Your task to perform on an android device: open app "TextNow: Call + Text Unlimited" (install if not already installed), go to login, and select forgot password Image 0: 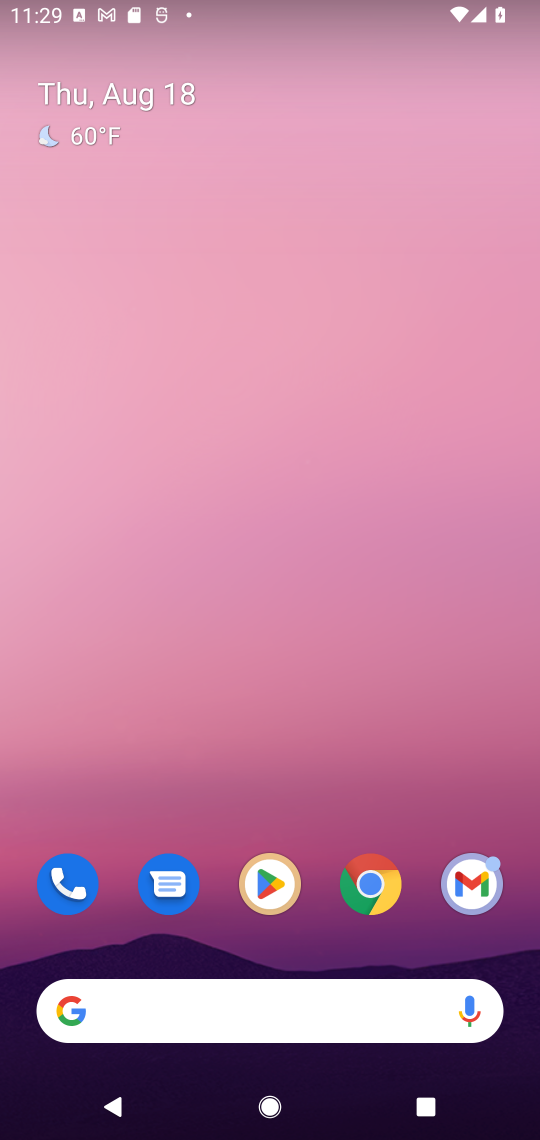
Step 0: drag from (222, 1007) to (344, 71)
Your task to perform on an android device: open app "TextNow: Call + Text Unlimited" (install if not already installed), go to login, and select forgot password Image 1: 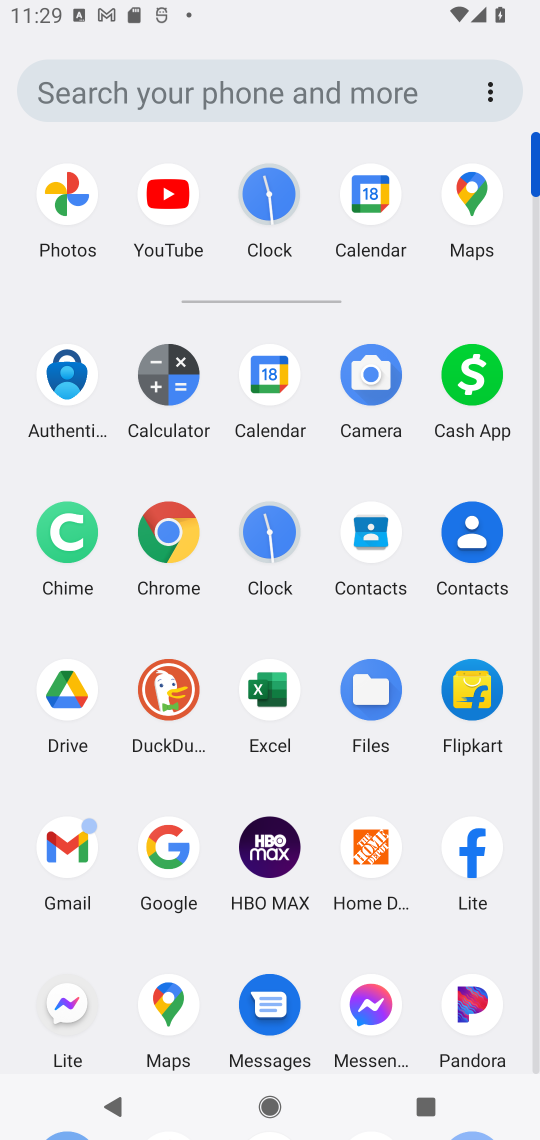
Step 1: drag from (320, 996) to (312, 373)
Your task to perform on an android device: open app "TextNow: Call + Text Unlimited" (install if not already installed), go to login, and select forgot password Image 2: 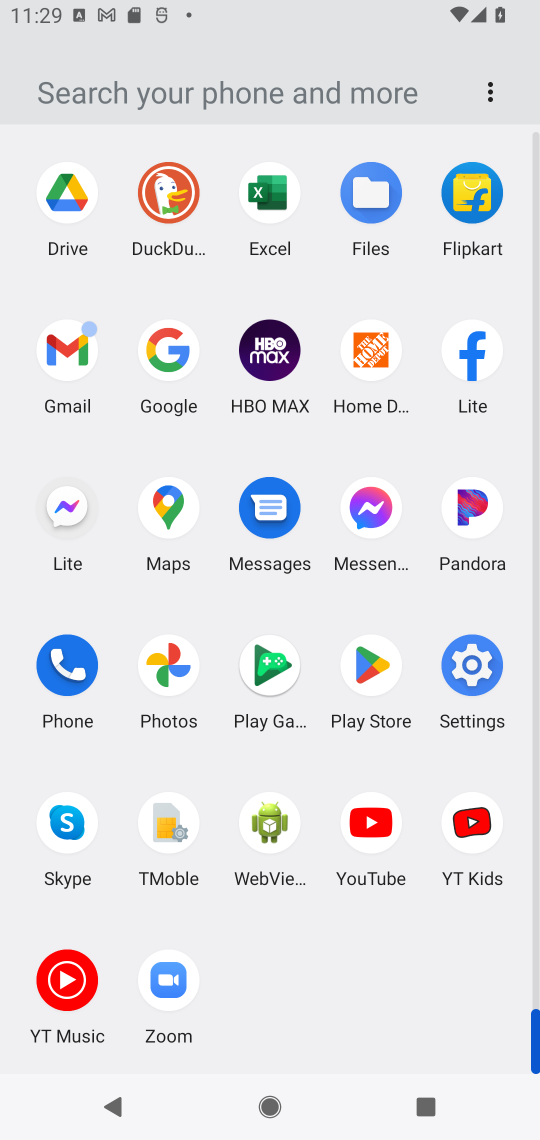
Step 2: click (373, 677)
Your task to perform on an android device: open app "TextNow: Call + Text Unlimited" (install if not already installed), go to login, and select forgot password Image 3: 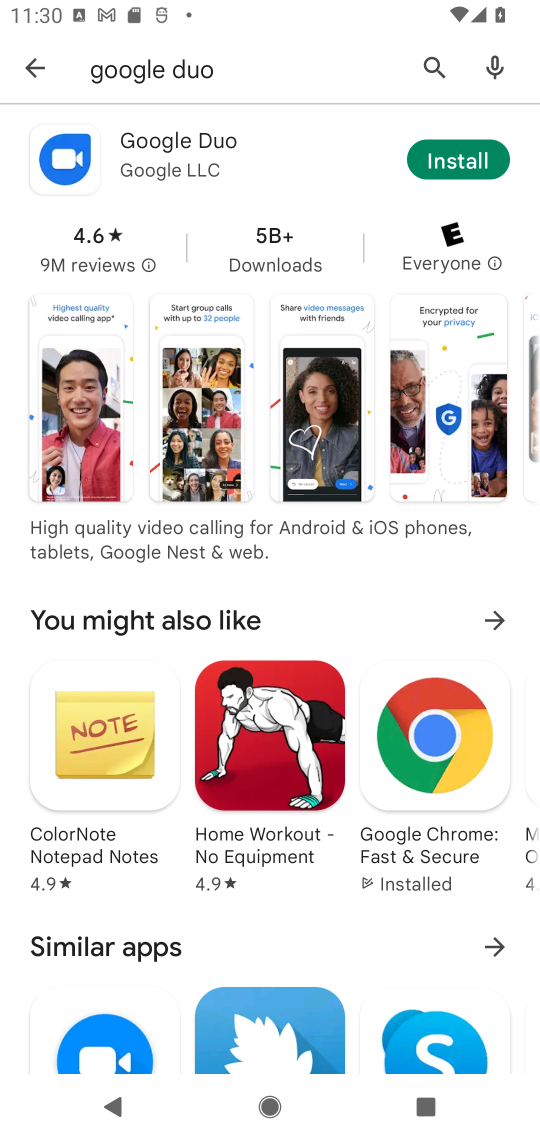
Step 3: press back button
Your task to perform on an android device: open app "TextNow: Call + Text Unlimited" (install if not already installed), go to login, and select forgot password Image 4: 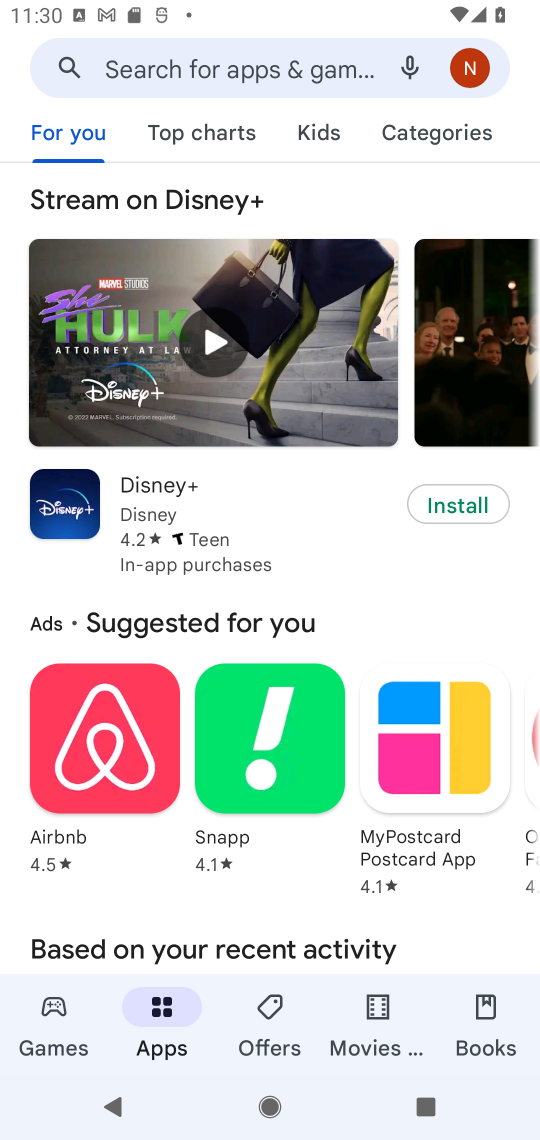
Step 4: click (292, 70)
Your task to perform on an android device: open app "TextNow: Call + Text Unlimited" (install if not already installed), go to login, and select forgot password Image 5: 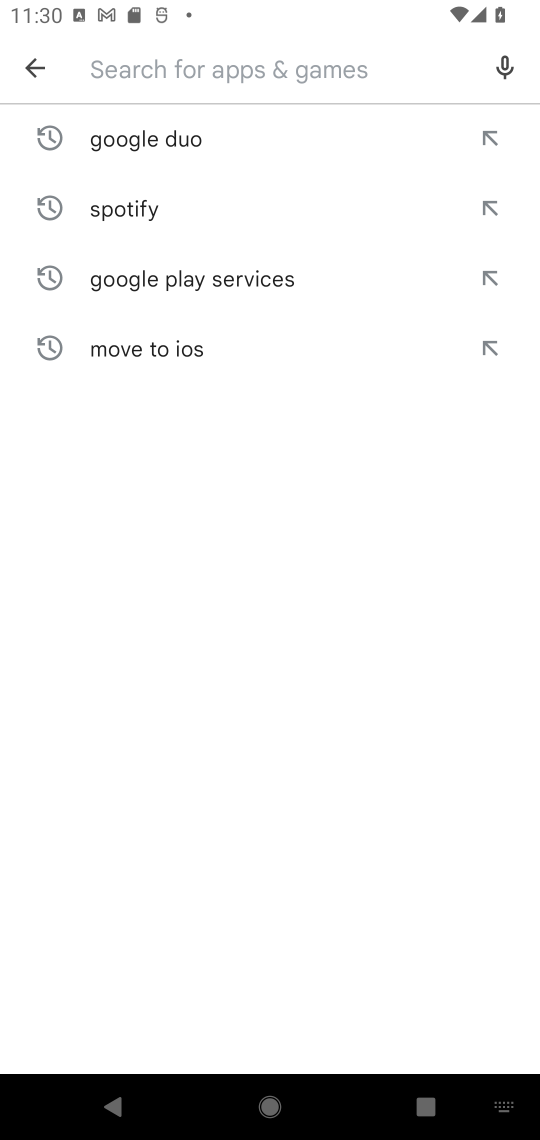
Step 5: click (200, 72)
Your task to perform on an android device: open app "TextNow: Call + Text Unlimited" (install if not already installed), go to login, and select forgot password Image 6: 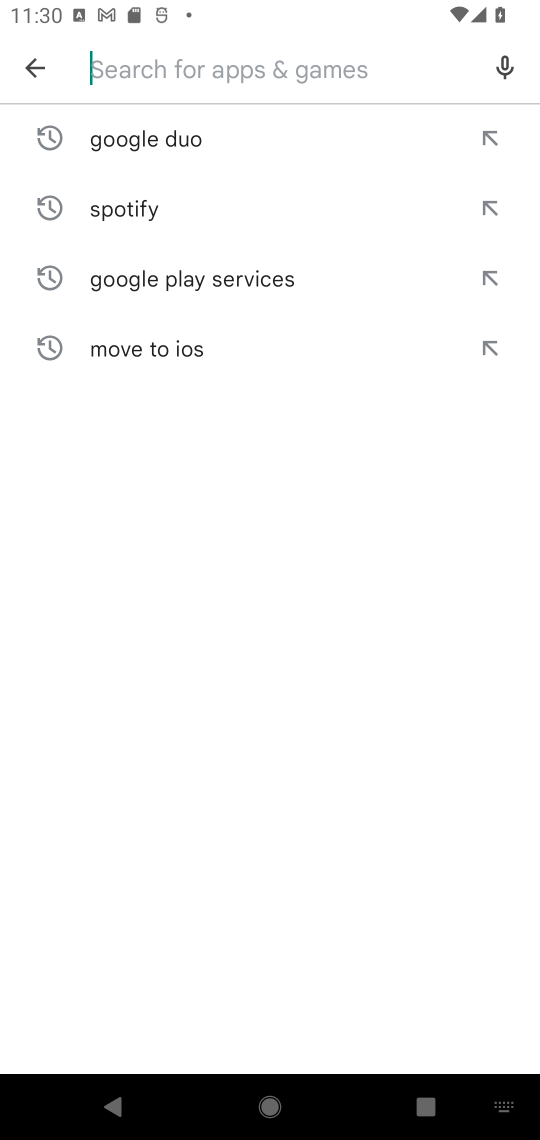
Step 6: type "TextNow: Call + Text Unlimited"
Your task to perform on an android device: open app "TextNow: Call + Text Unlimited" (install if not already installed), go to login, and select forgot password Image 7: 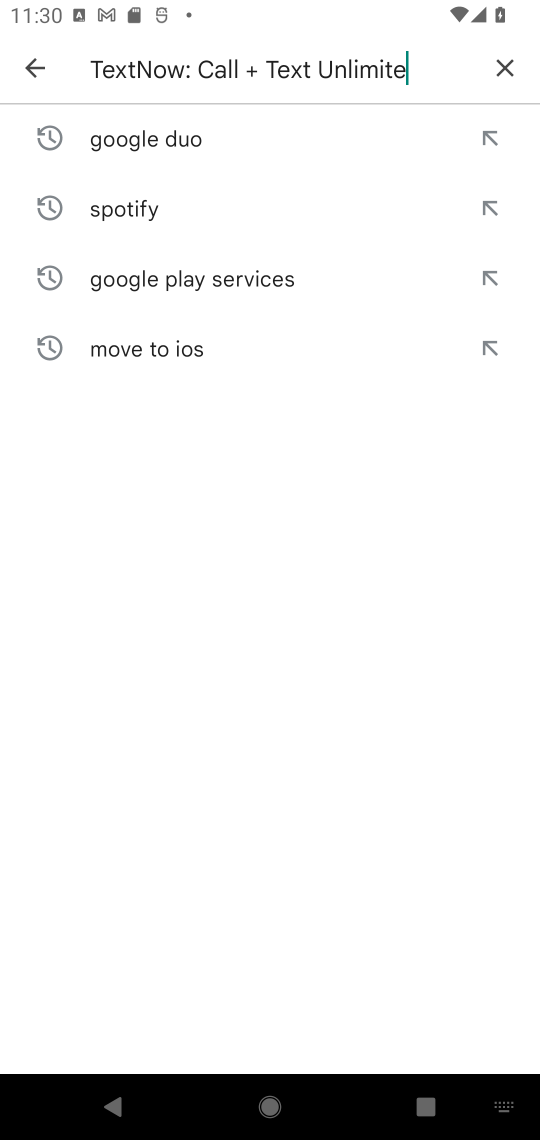
Step 7: type ""
Your task to perform on an android device: open app "TextNow: Call + Text Unlimited" (install if not already installed), go to login, and select forgot password Image 8: 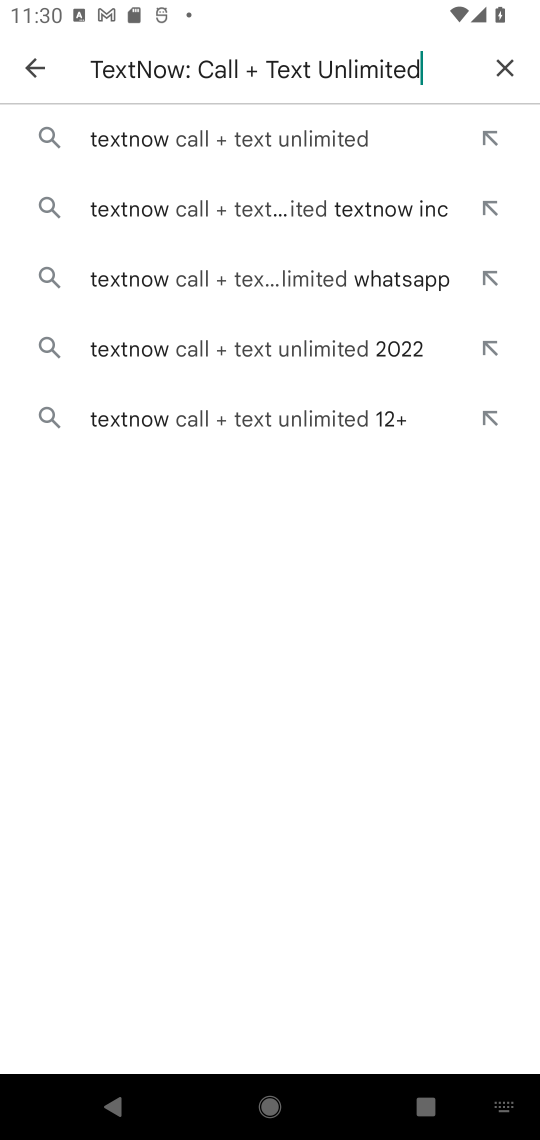
Step 8: click (240, 140)
Your task to perform on an android device: open app "TextNow: Call + Text Unlimited" (install if not already installed), go to login, and select forgot password Image 9: 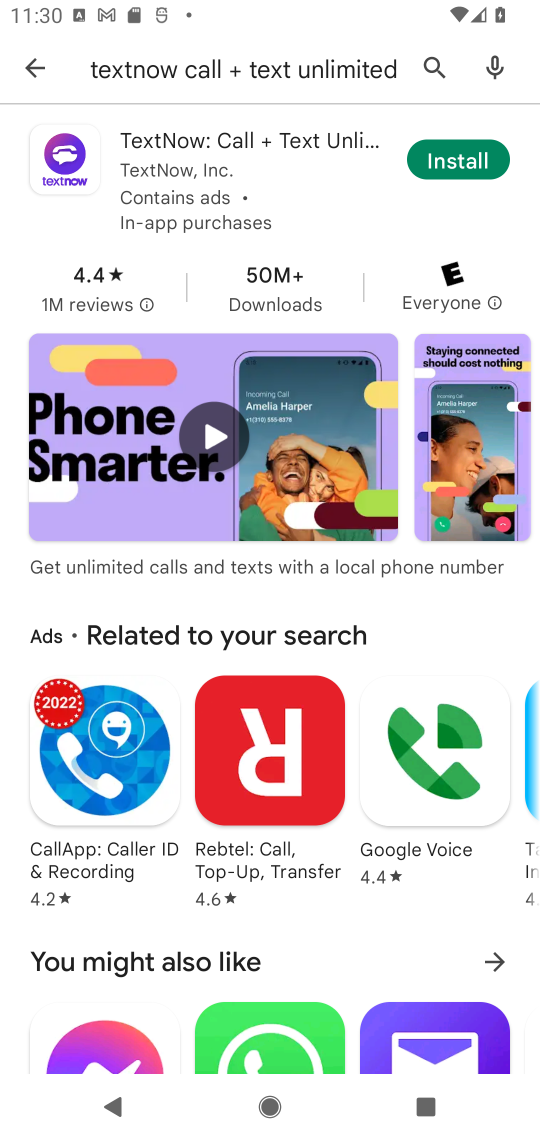
Step 9: click (467, 151)
Your task to perform on an android device: open app "TextNow: Call + Text Unlimited" (install if not already installed), go to login, and select forgot password Image 10: 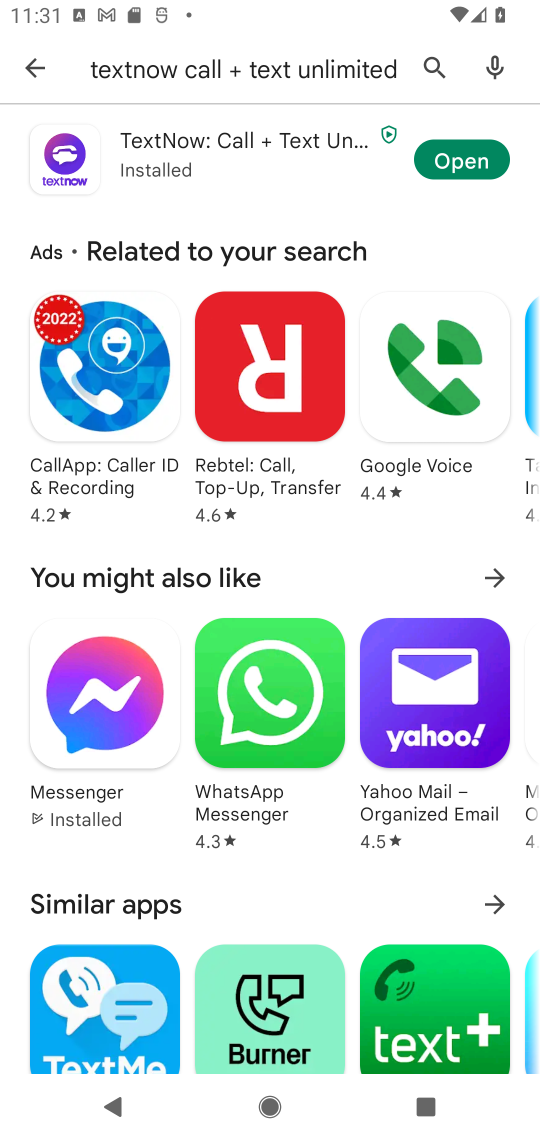
Step 10: click (462, 151)
Your task to perform on an android device: open app "TextNow: Call + Text Unlimited" (install if not already installed), go to login, and select forgot password Image 11: 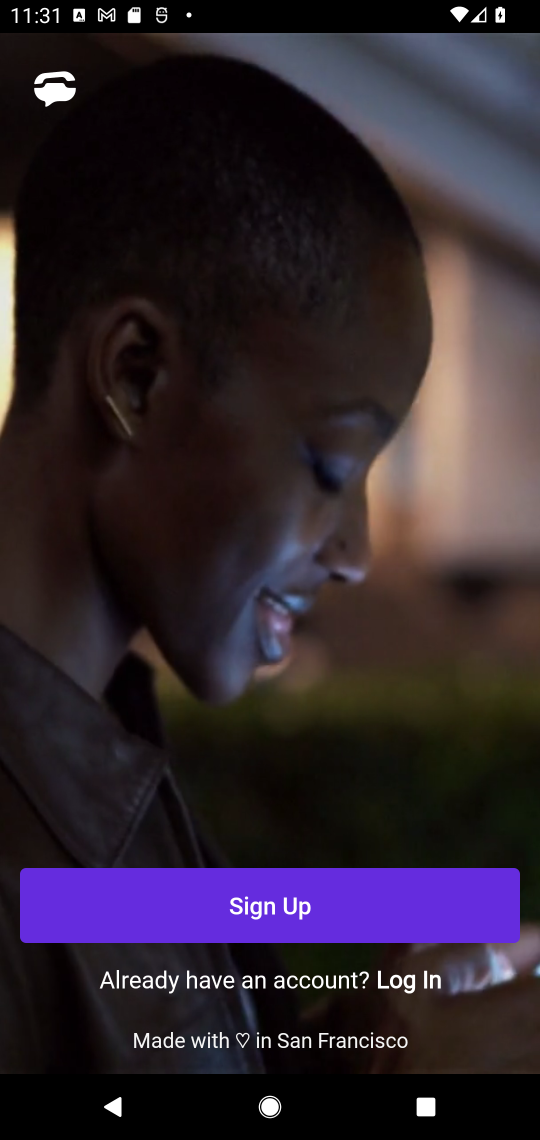
Step 11: click (404, 990)
Your task to perform on an android device: open app "TextNow: Call + Text Unlimited" (install if not already installed), go to login, and select forgot password Image 12: 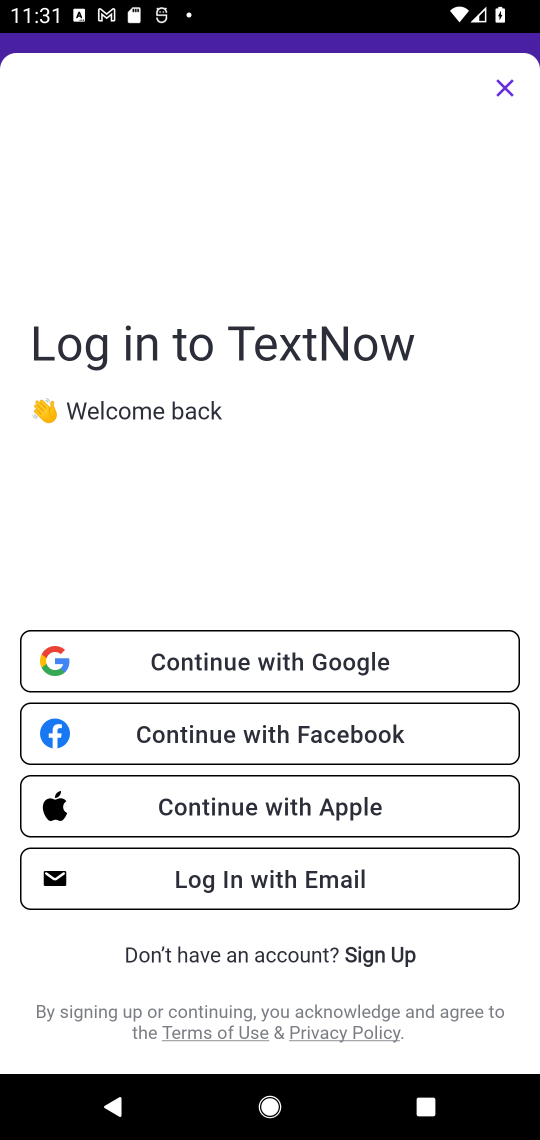
Step 12: click (337, 884)
Your task to perform on an android device: open app "TextNow: Call + Text Unlimited" (install if not already installed), go to login, and select forgot password Image 13: 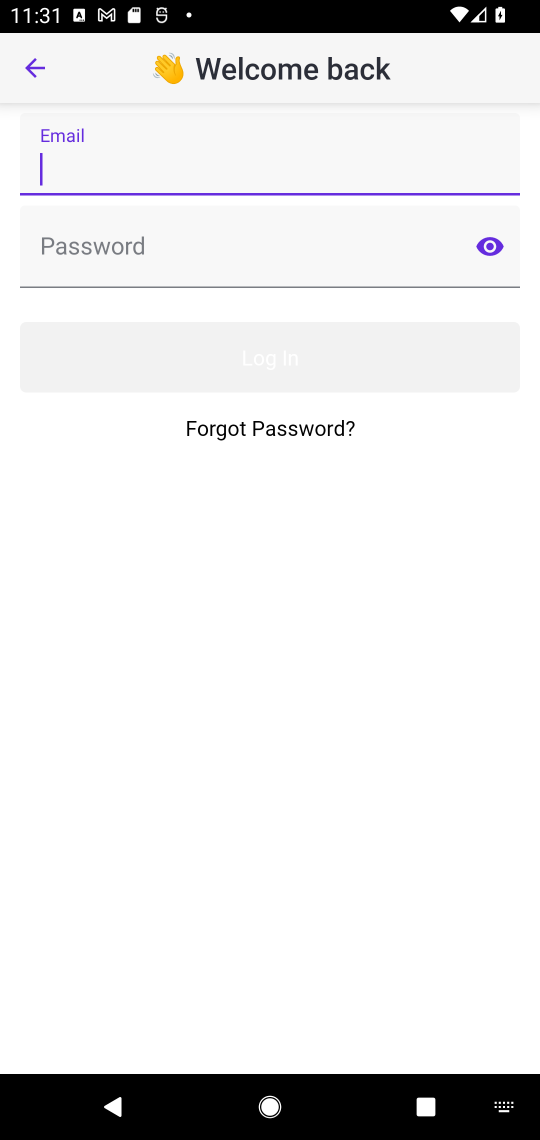
Step 13: click (284, 429)
Your task to perform on an android device: open app "TextNow: Call + Text Unlimited" (install if not already installed), go to login, and select forgot password Image 14: 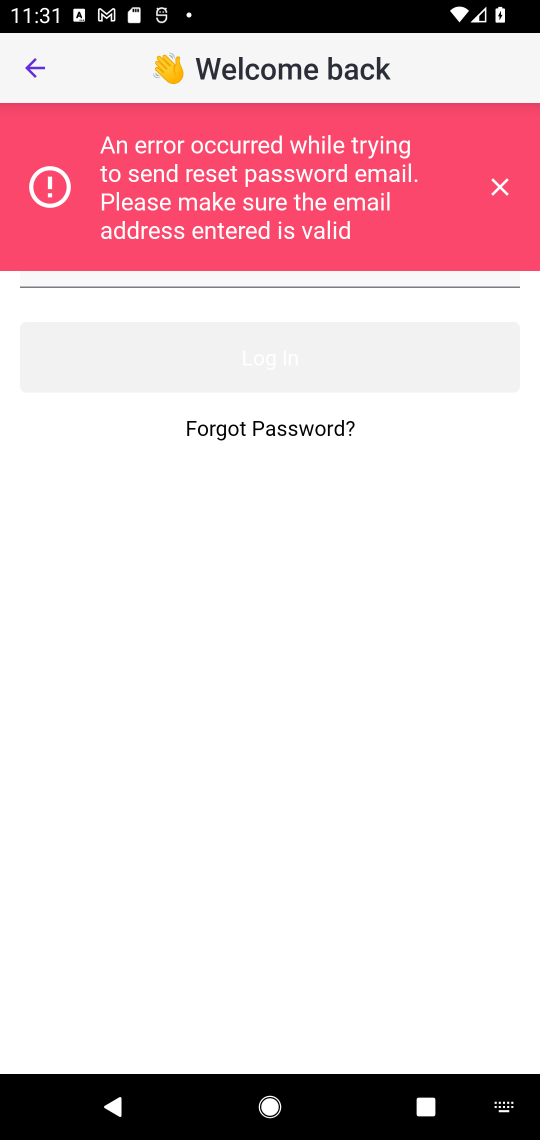
Step 14: task complete